Your task to perform on an android device: turn on sleep mode Image 0: 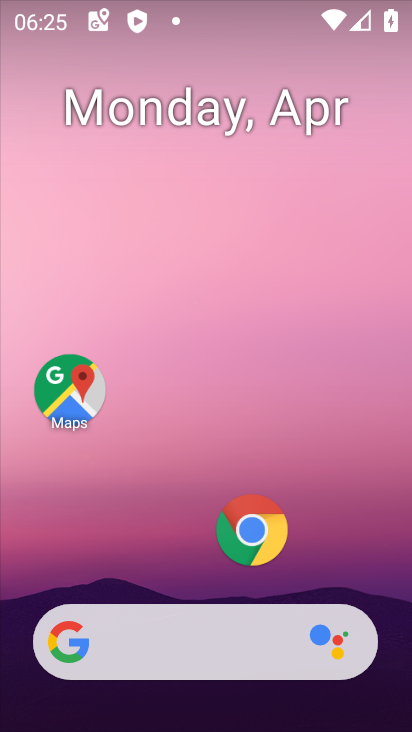
Step 0: drag from (193, 584) to (206, 110)
Your task to perform on an android device: turn on sleep mode Image 1: 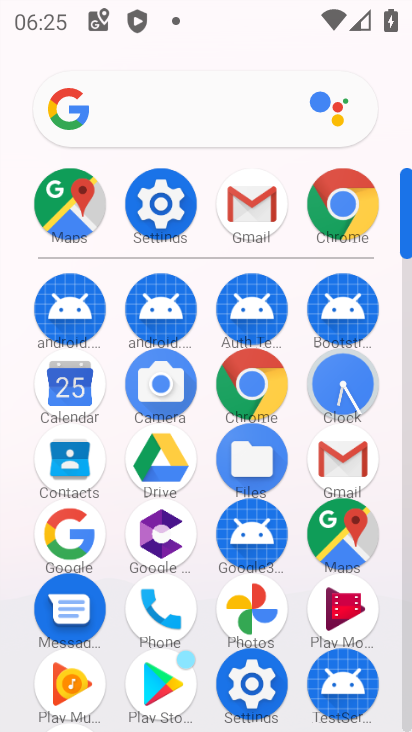
Step 1: click (251, 681)
Your task to perform on an android device: turn on sleep mode Image 2: 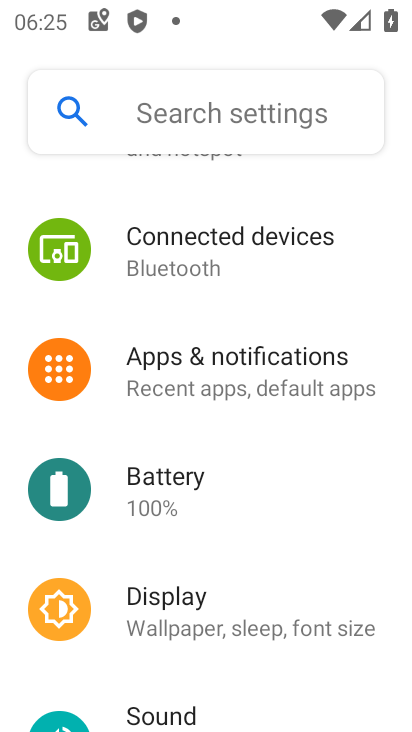
Step 2: click (196, 611)
Your task to perform on an android device: turn on sleep mode Image 3: 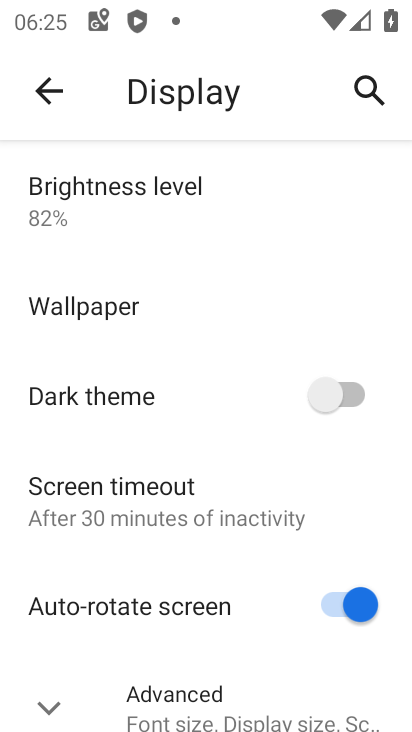
Step 3: click (69, 683)
Your task to perform on an android device: turn on sleep mode Image 4: 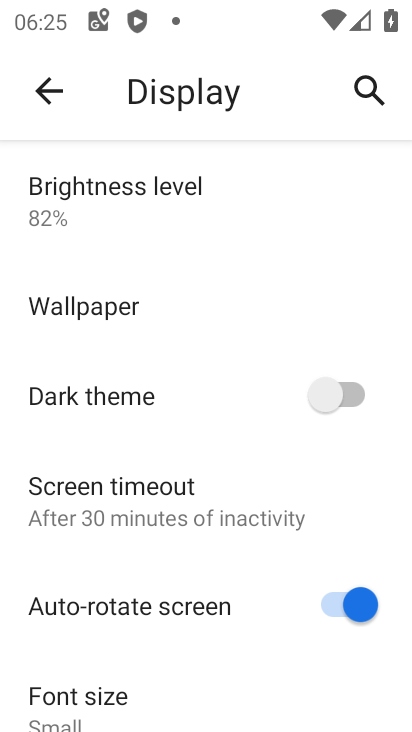
Step 4: task complete